Your task to perform on an android device: check out phone information Image 0: 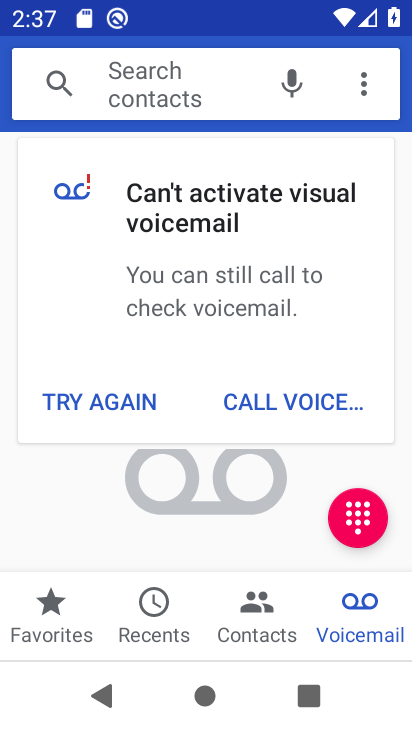
Step 0: press home button
Your task to perform on an android device: check out phone information Image 1: 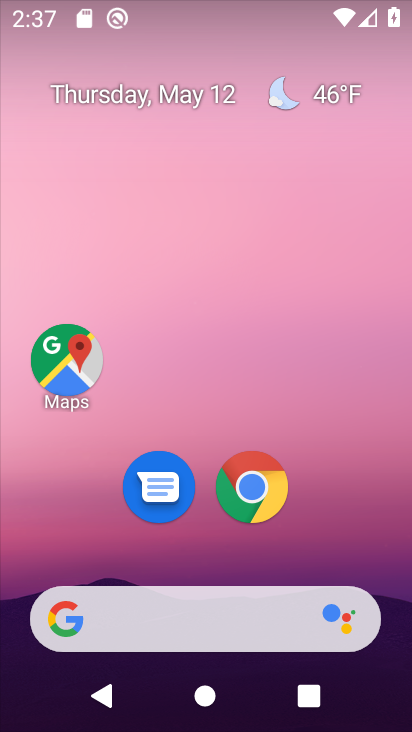
Step 1: drag from (304, 543) to (290, 43)
Your task to perform on an android device: check out phone information Image 2: 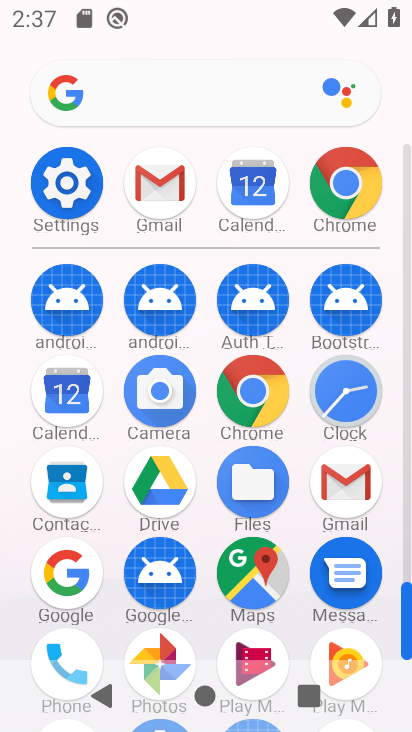
Step 2: click (61, 190)
Your task to perform on an android device: check out phone information Image 3: 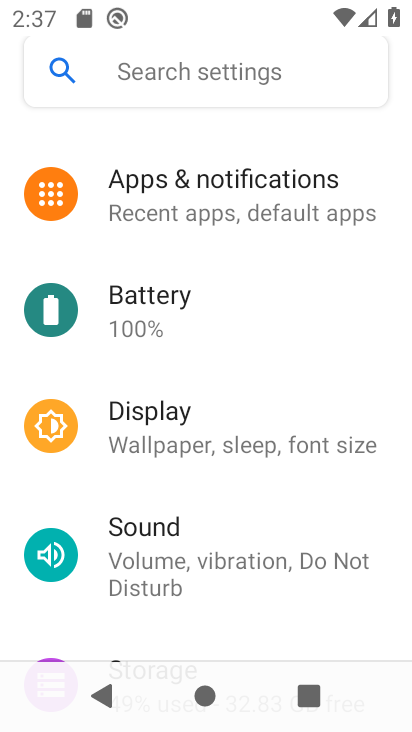
Step 3: drag from (184, 482) to (225, 127)
Your task to perform on an android device: check out phone information Image 4: 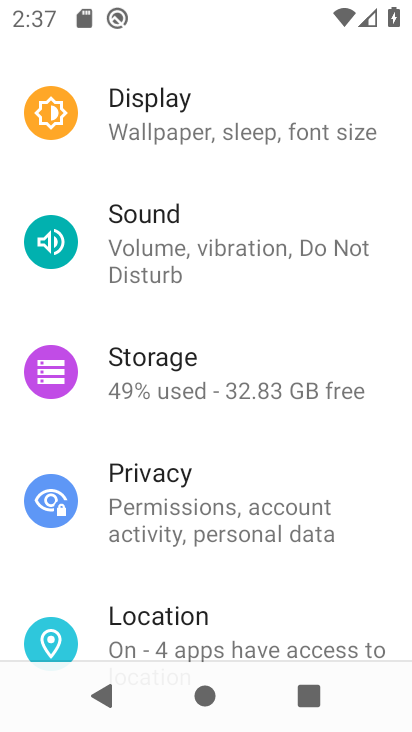
Step 4: drag from (220, 573) to (235, 83)
Your task to perform on an android device: check out phone information Image 5: 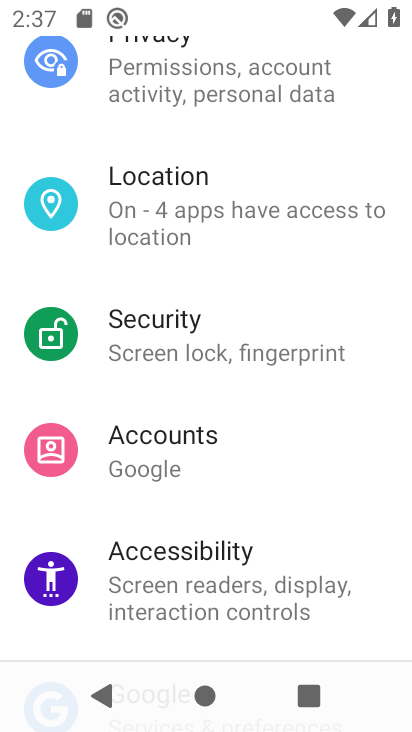
Step 5: drag from (240, 623) to (299, 273)
Your task to perform on an android device: check out phone information Image 6: 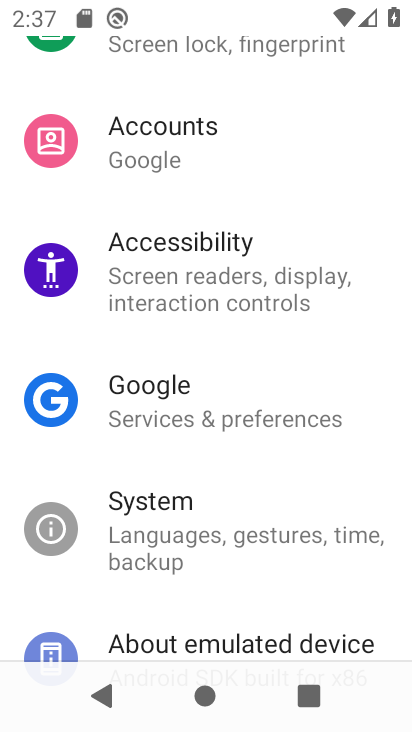
Step 6: drag from (211, 604) to (230, 325)
Your task to perform on an android device: check out phone information Image 7: 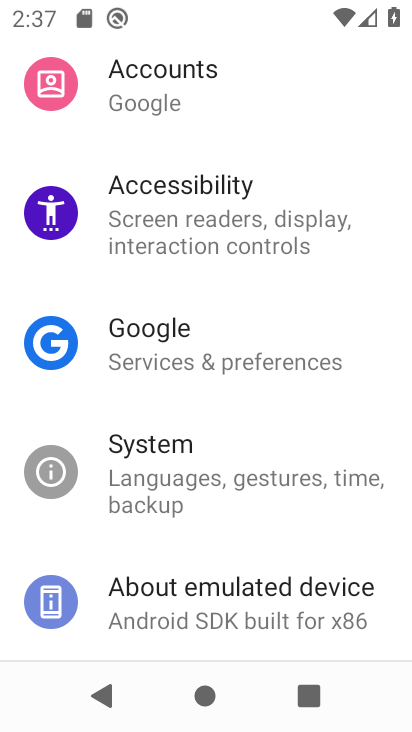
Step 7: click (131, 603)
Your task to perform on an android device: check out phone information Image 8: 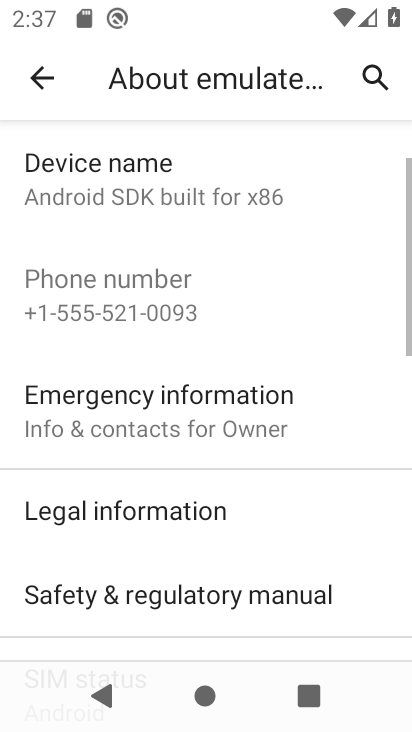
Step 8: task complete